Your task to perform on an android device: change the clock display to analog Image 0: 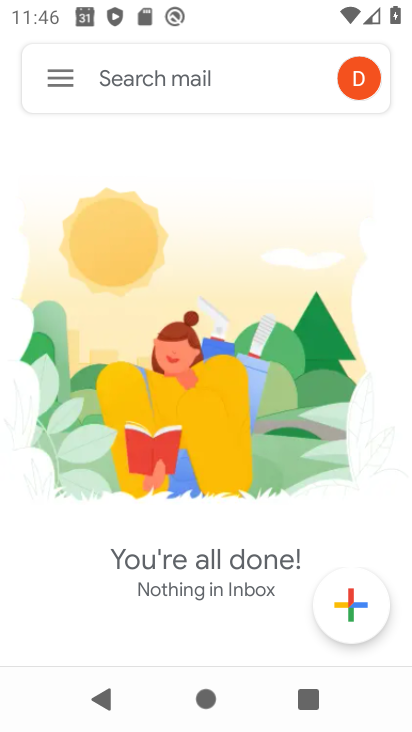
Step 0: press home button
Your task to perform on an android device: change the clock display to analog Image 1: 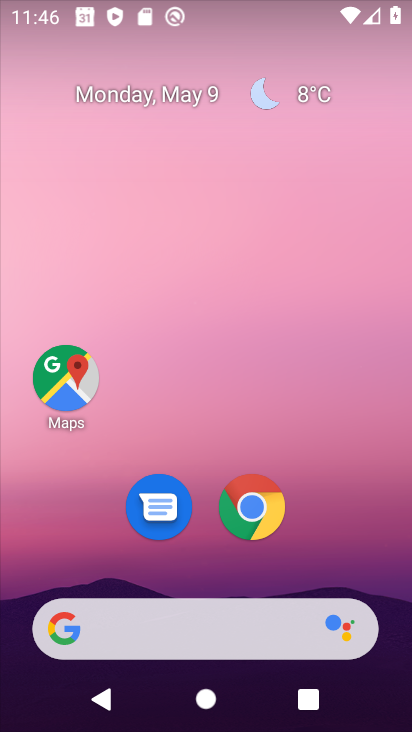
Step 1: drag from (301, 544) to (298, 34)
Your task to perform on an android device: change the clock display to analog Image 2: 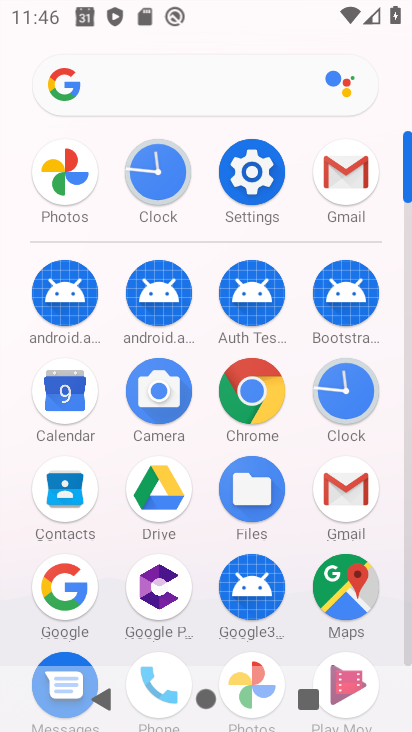
Step 2: click (171, 177)
Your task to perform on an android device: change the clock display to analog Image 3: 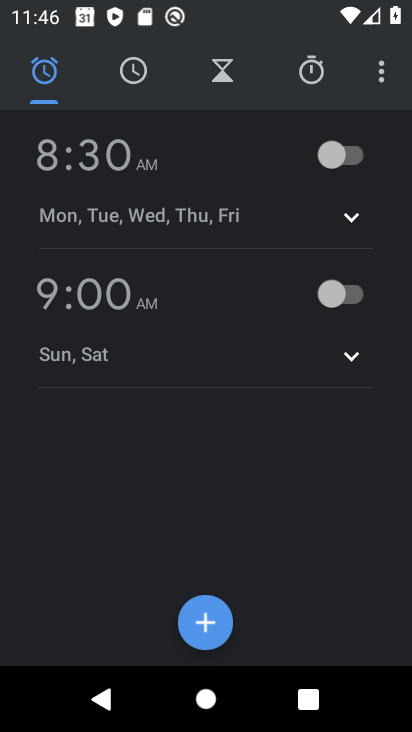
Step 3: click (387, 75)
Your task to perform on an android device: change the clock display to analog Image 4: 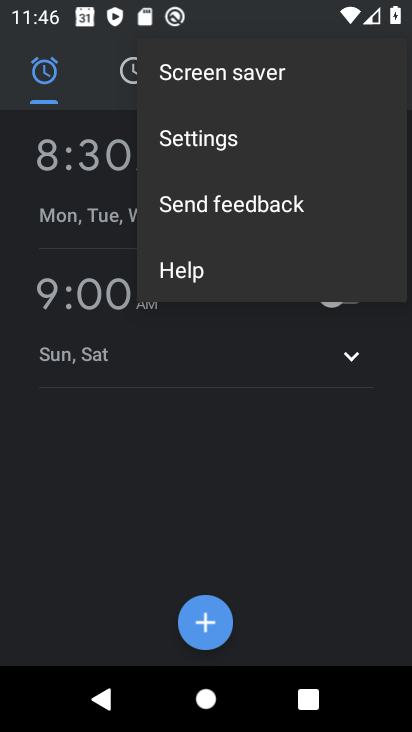
Step 4: click (218, 137)
Your task to perform on an android device: change the clock display to analog Image 5: 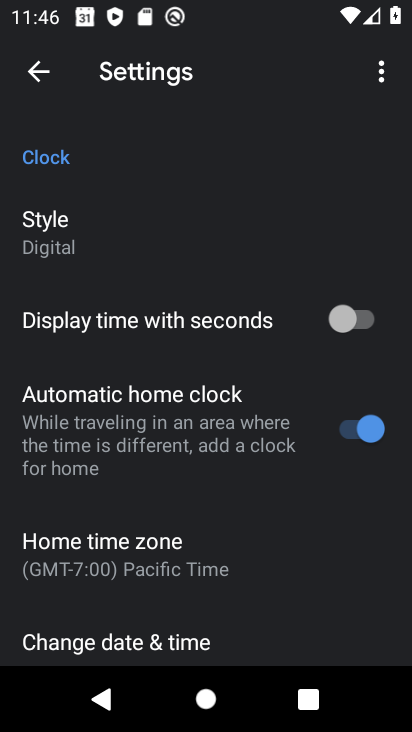
Step 5: click (65, 243)
Your task to perform on an android device: change the clock display to analog Image 6: 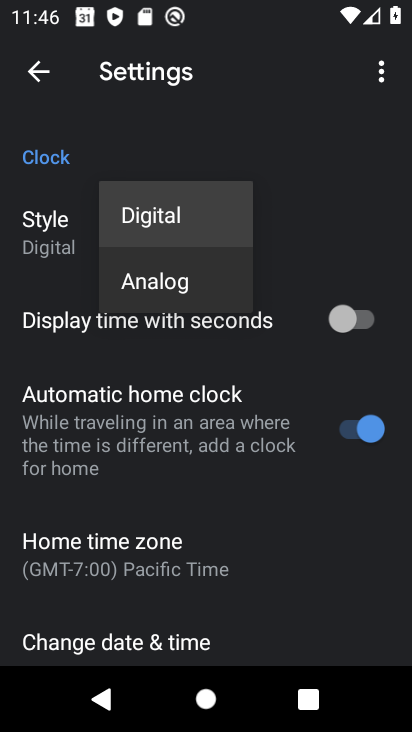
Step 6: click (177, 281)
Your task to perform on an android device: change the clock display to analog Image 7: 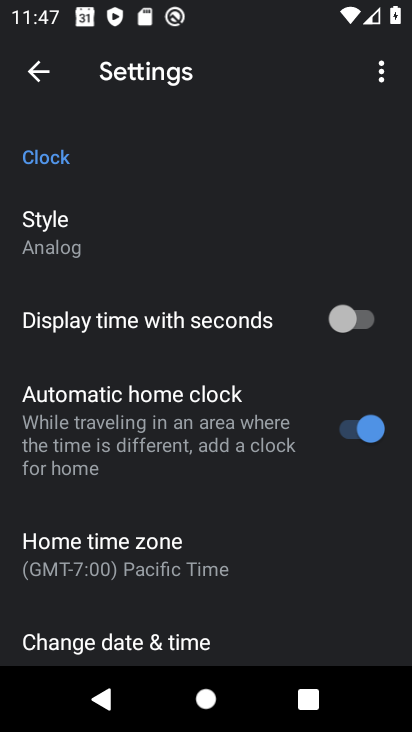
Step 7: task complete